Your task to perform on an android device: open a new tab in the chrome app Image 0: 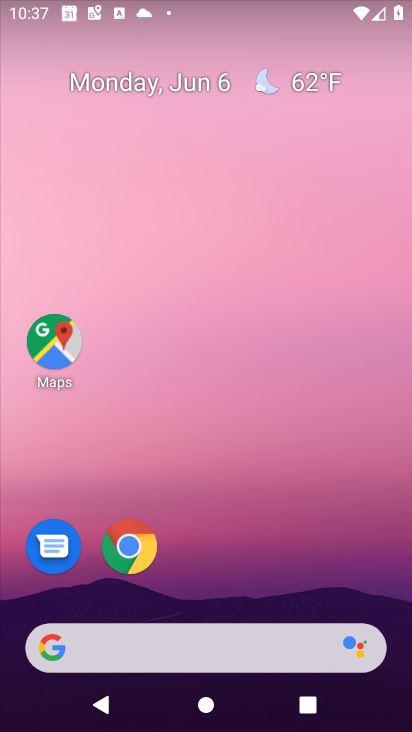
Step 0: click (134, 549)
Your task to perform on an android device: open a new tab in the chrome app Image 1: 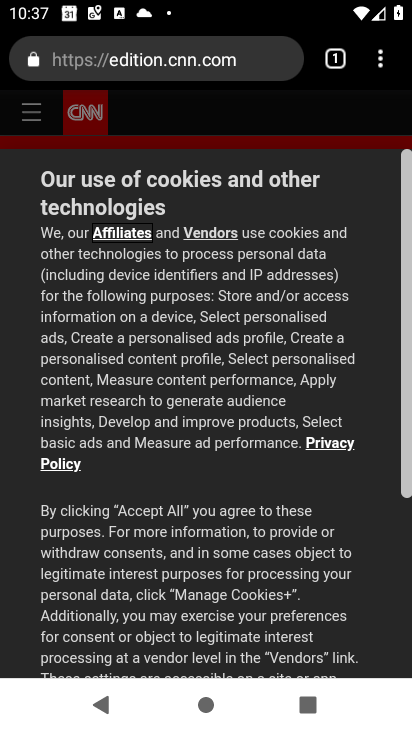
Step 1: click (375, 65)
Your task to perform on an android device: open a new tab in the chrome app Image 2: 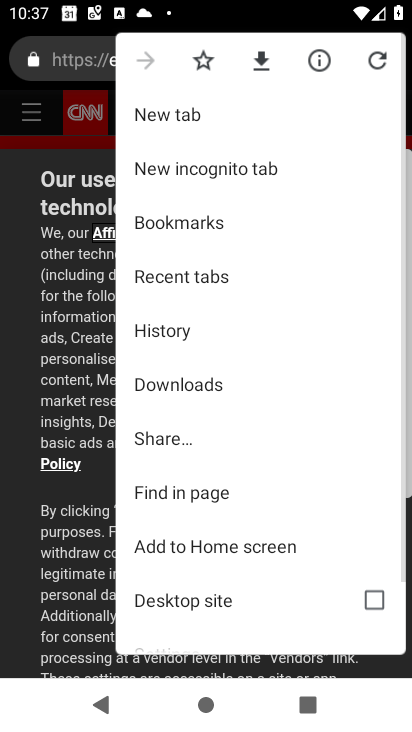
Step 2: click (171, 119)
Your task to perform on an android device: open a new tab in the chrome app Image 3: 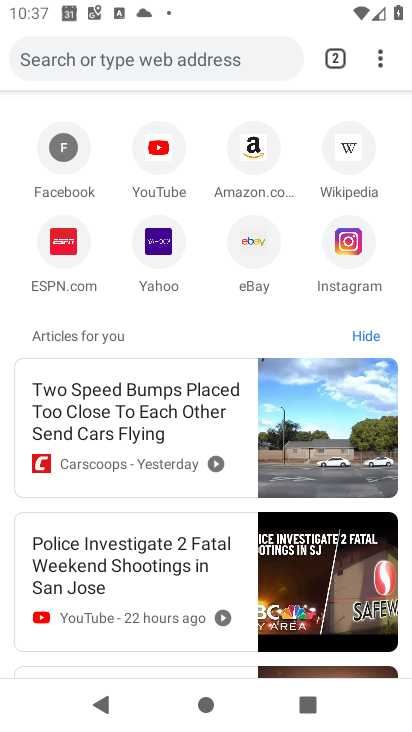
Step 3: task complete